Your task to perform on an android device: Open Youtube and go to "Your channel" Image 0: 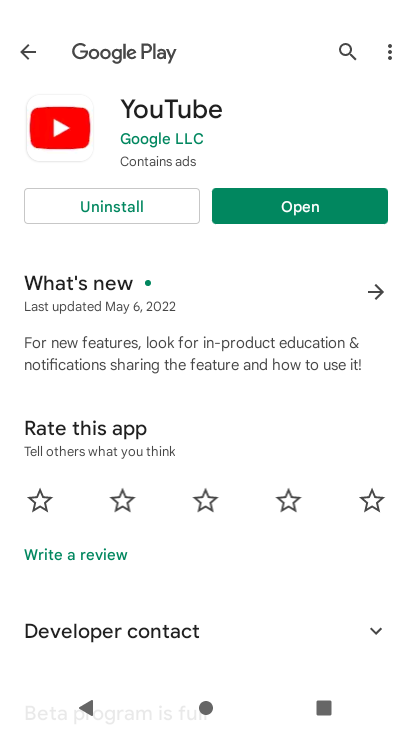
Step 0: click (350, 194)
Your task to perform on an android device: Open Youtube and go to "Your channel" Image 1: 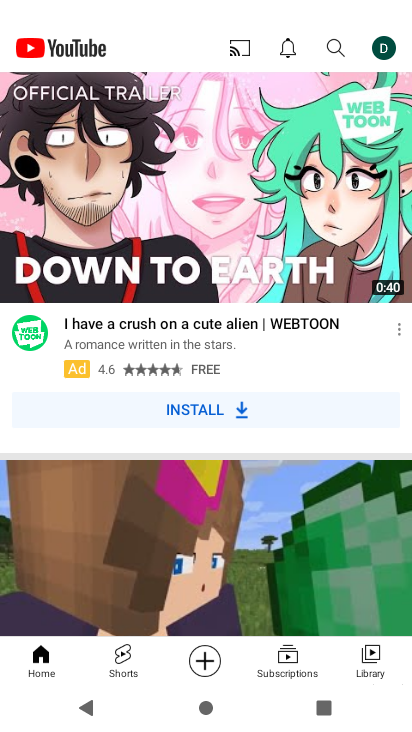
Step 1: click (378, 46)
Your task to perform on an android device: Open Youtube and go to "Your channel" Image 2: 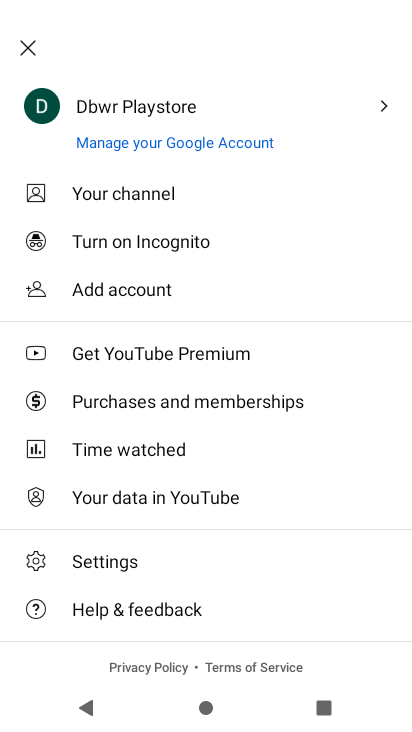
Step 2: click (192, 188)
Your task to perform on an android device: Open Youtube and go to "Your channel" Image 3: 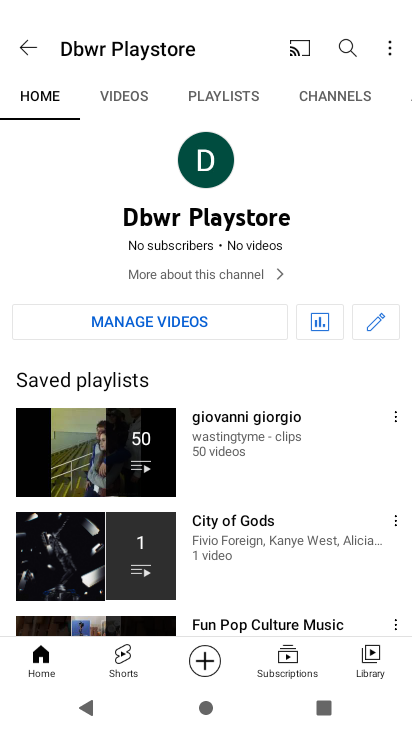
Step 3: task complete